Your task to perform on an android device: turn notification dots on Image 0: 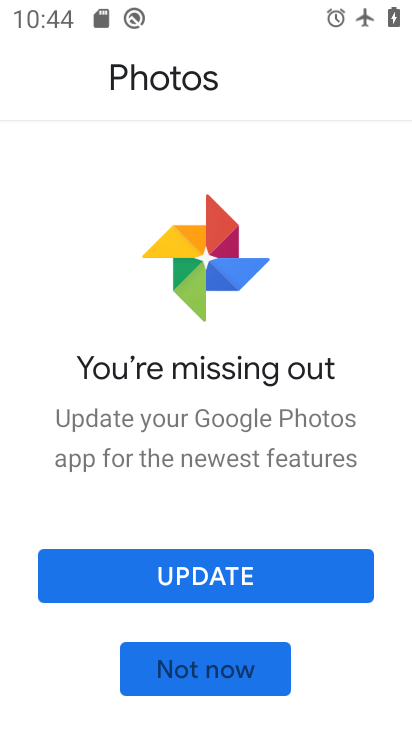
Step 0: press home button
Your task to perform on an android device: turn notification dots on Image 1: 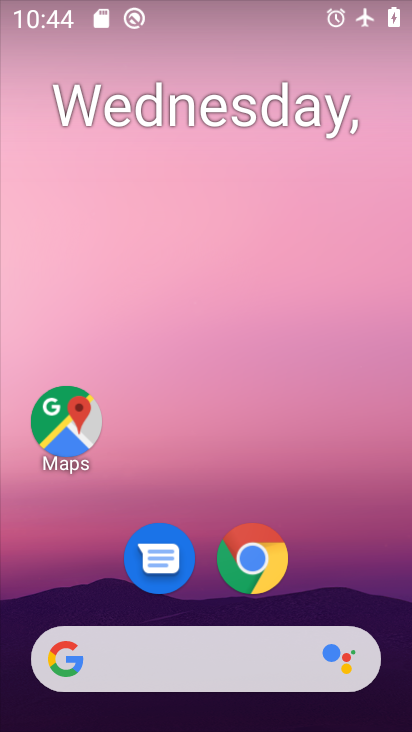
Step 1: drag from (357, 570) to (363, 131)
Your task to perform on an android device: turn notification dots on Image 2: 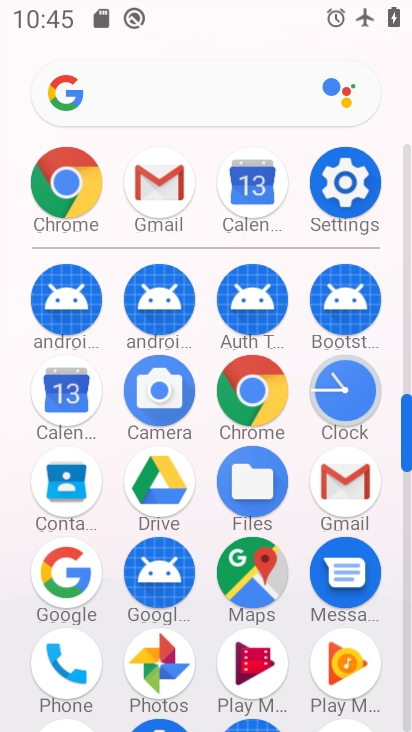
Step 2: click (344, 190)
Your task to perform on an android device: turn notification dots on Image 3: 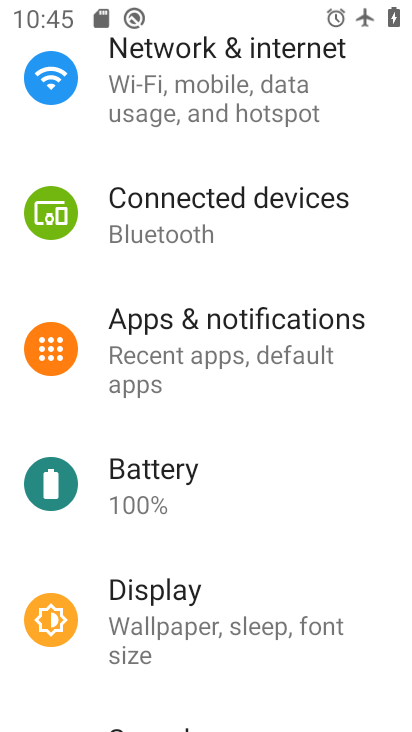
Step 3: drag from (381, 162) to (379, 316)
Your task to perform on an android device: turn notification dots on Image 4: 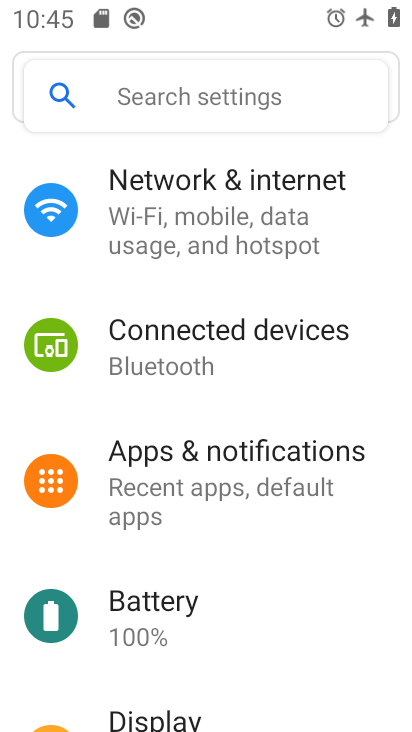
Step 4: drag from (361, 158) to (380, 415)
Your task to perform on an android device: turn notification dots on Image 5: 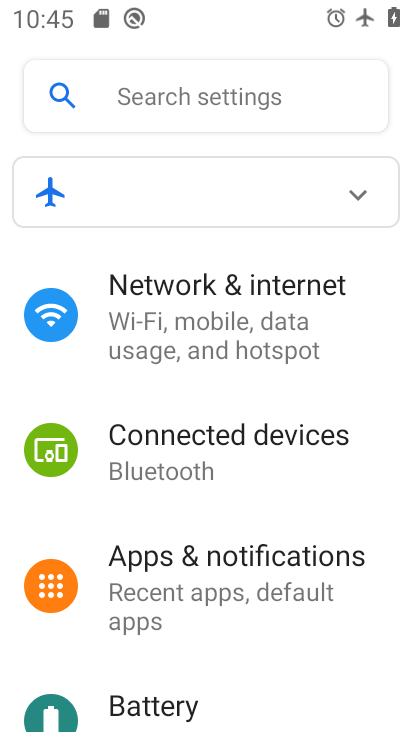
Step 5: drag from (376, 531) to (378, 430)
Your task to perform on an android device: turn notification dots on Image 6: 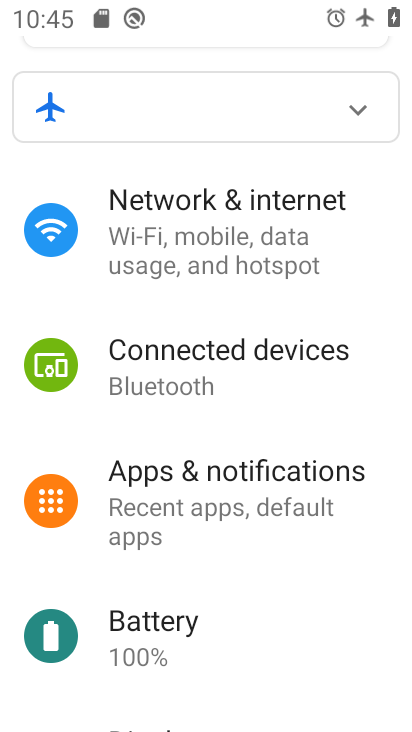
Step 6: drag from (352, 564) to (361, 442)
Your task to perform on an android device: turn notification dots on Image 7: 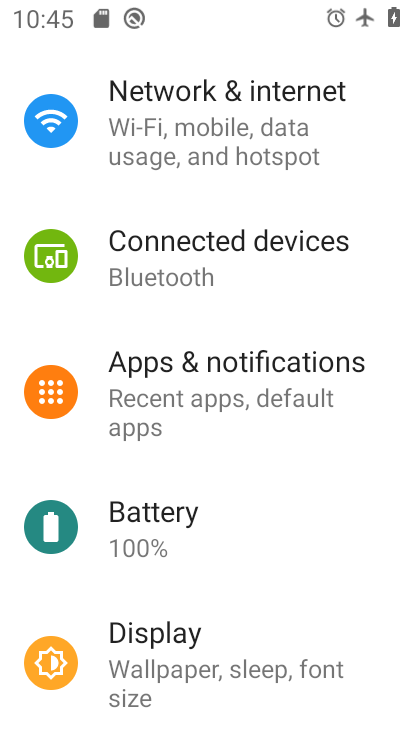
Step 7: drag from (343, 583) to (348, 406)
Your task to perform on an android device: turn notification dots on Image 8: 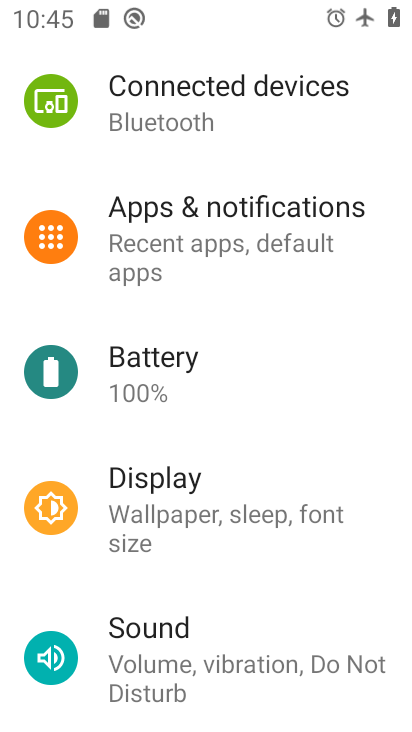
Step 8: drag from (383, 530) to (375, 408)
Your task to perform on an android device: turn notification dots on Image 9: 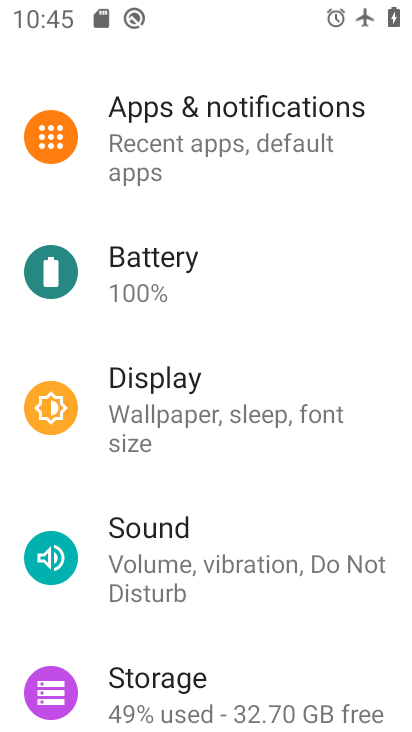
Step 9: drag from (336, 267) to (337, 377)
Your task to perform on an android device: turn notification dots on Image 10: 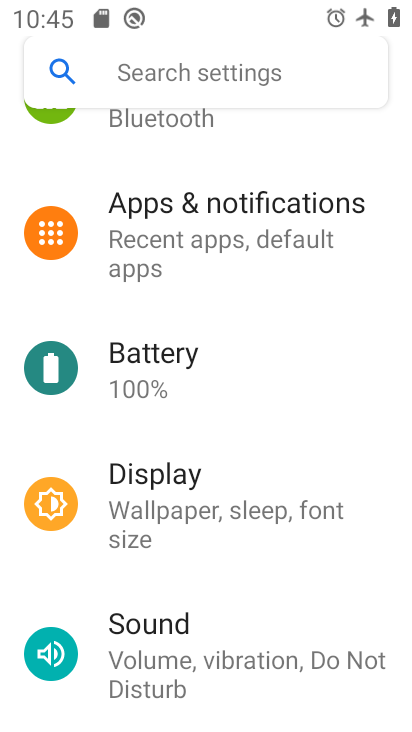
Step 10: drag from (370, 233) to (365, 421)
Your task to perform on an android device: turn notification dots on Image 11: 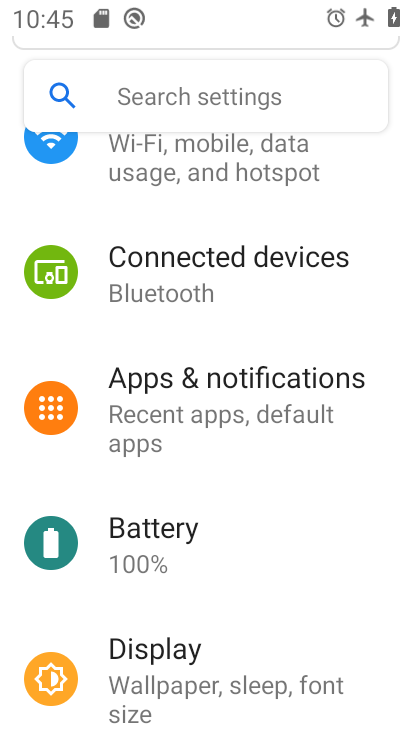
Step 11: click (202, 406)
Your task to perform on an android device: turn notification dots on Image 12: 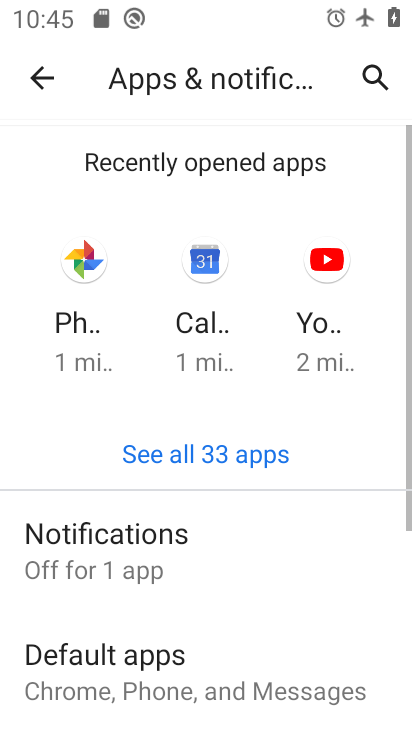
Step 12: drag from (279, 565) to (274, 433)
Your task to perform on an android device: turn notification dots on Image 13: 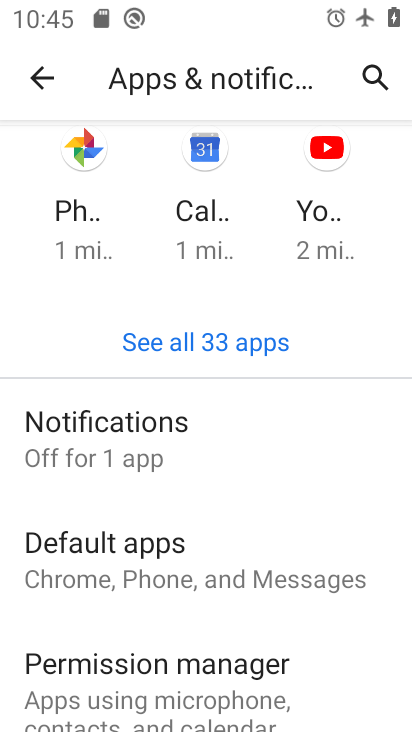
Step 13: drag from (284, 553) to (289, 356)
Your task to perform on an android device: turn notification dots on Image 14: 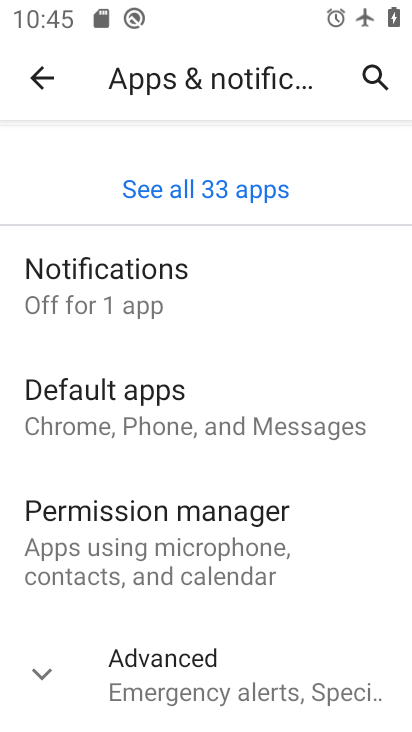
Step 14: drag from (303, 537) to (305, 406)
Your task to perform on an android device: turn notification dots on Image 15: 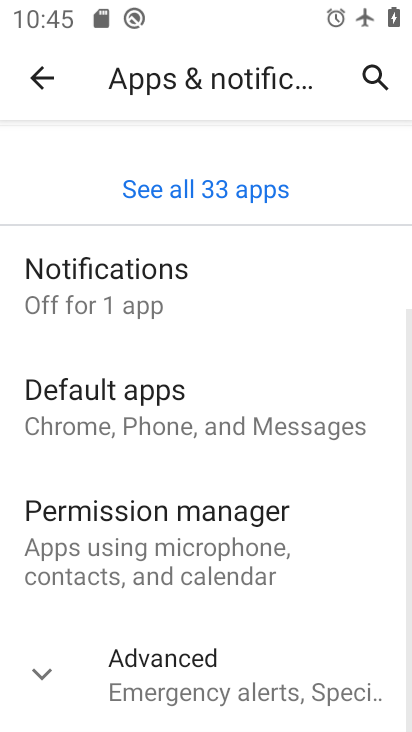
Step 15: click (200, 297)
Your task to perform on an android device: turn notification dots on Image 16: 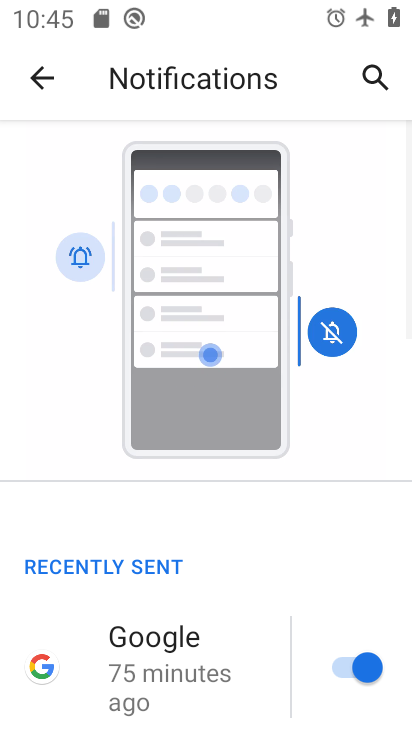
Step 16: drag from (298, 544) to (293, 436)
Your task to perform on an android device: turn notification dots on Image 17: 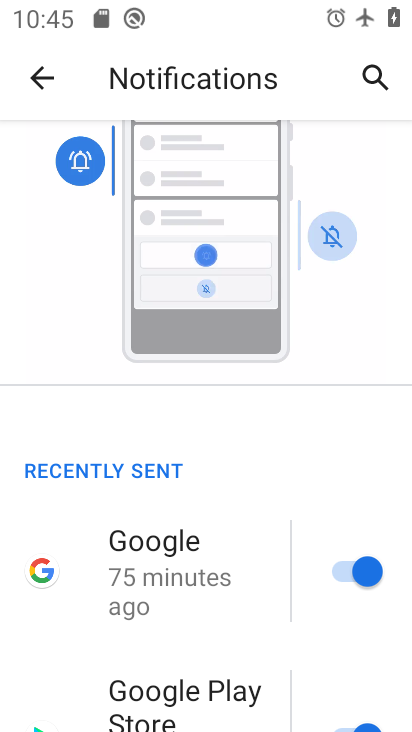
Step 17: drag from (256, 586) to (251, 426)
Your task to perform on an android device: turn notification dots on Image 18: 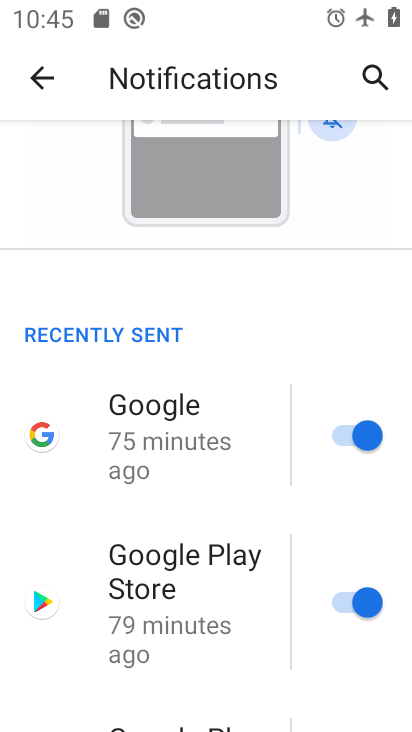
Step 18: drag from (252, 609) to (246, 425)
Your task to perform on an android device: turn notification dots on Image 19: 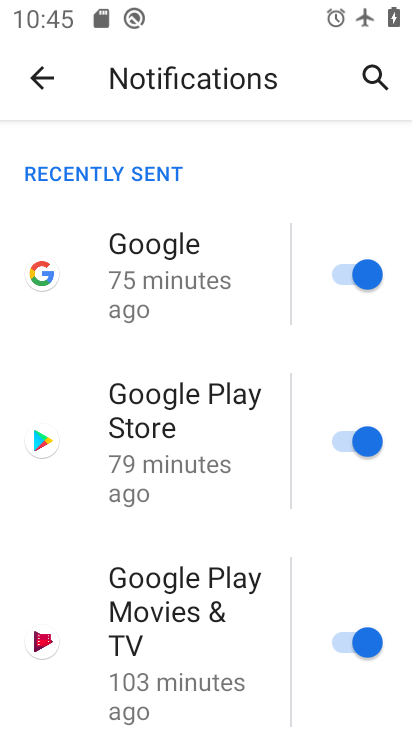
Step 19: drag from (257, 636) to (271, 439)
Your task to perform on an android device: turn notification dots on Image 20: 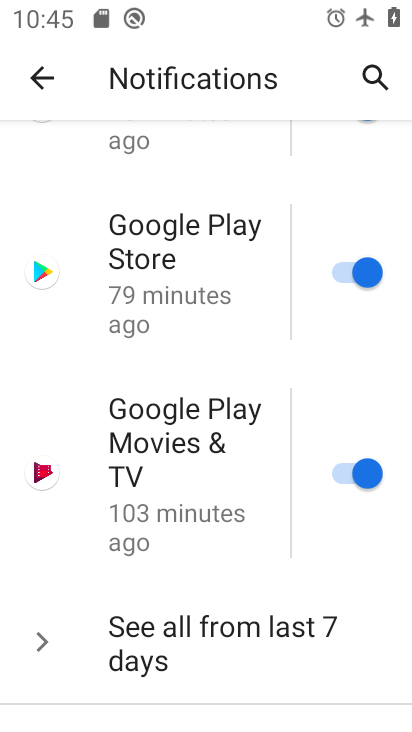
Step 20: drag from (269, 650) to (270, 429)
Your task to perform on an android device: turn notification dots on Image 21: 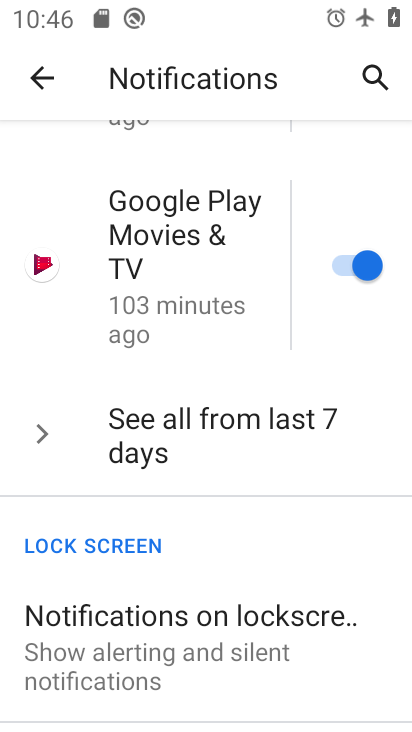
Step 21: drag from (292, 569) to (291, 433)
Your task to perform on an android device: turn notification dots on Image 22: 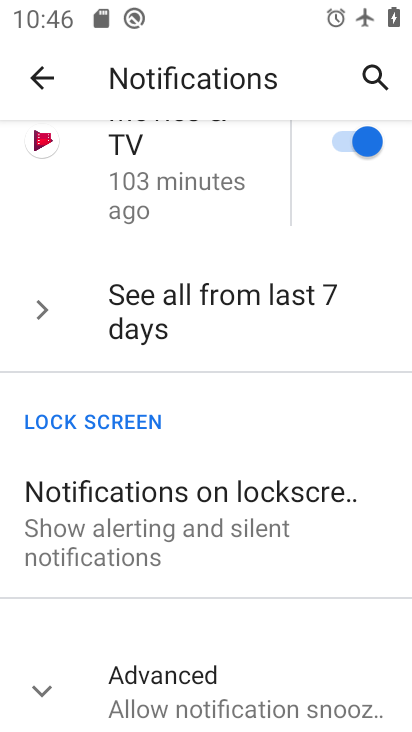
Step 22: click (319, 680)
Your task to perform on an android device: turn notification dots on Image 23: 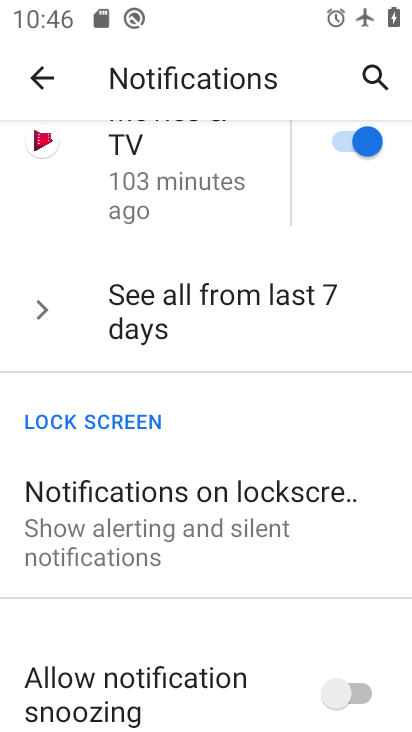
Step 23: drag from (273, 666) to (270, 452)
Your task to perform on an android device: turn notification dots on Image 24: 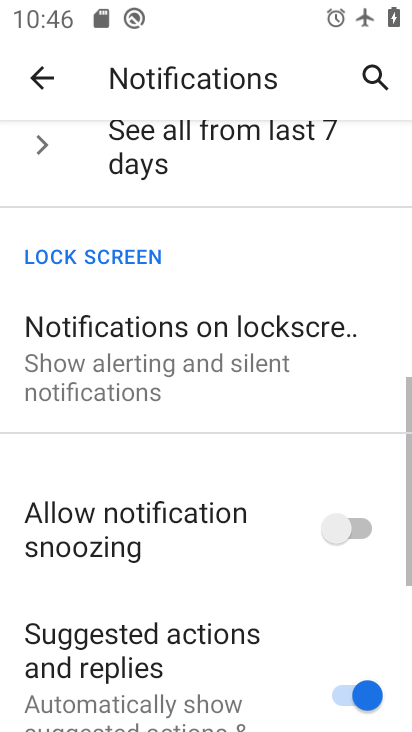
Step 24: drag from (293, 678) to (282, 449)
Your task to perform on an android device: turn notification dots on Image 25: 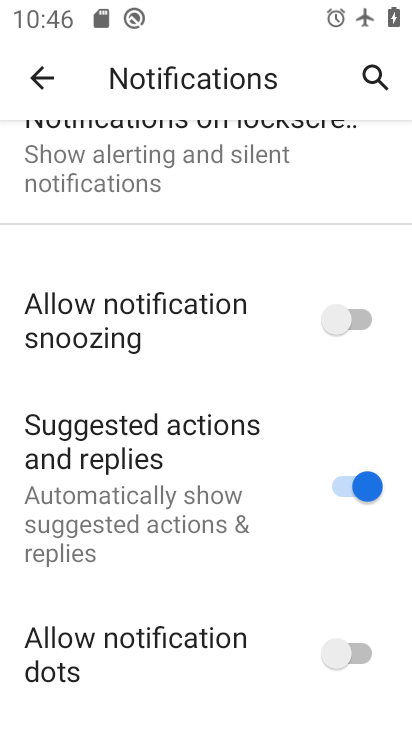
Step 25: click (337, 654)
Your task to perform on an android device: turn notification dots on Image 26: 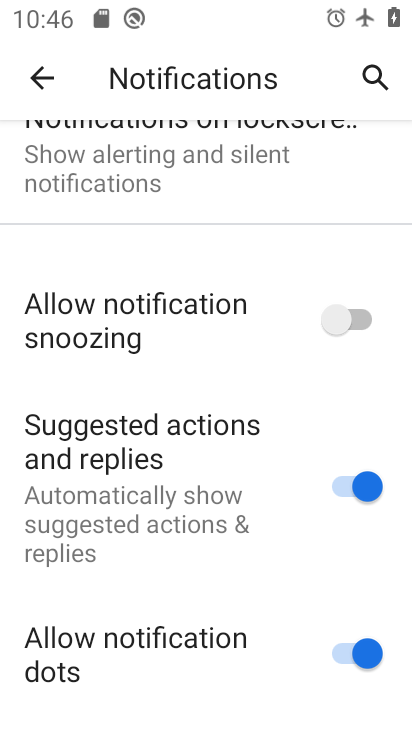
Step 26: task complete